Your task to perform on an android device: toggle location history Image 0: 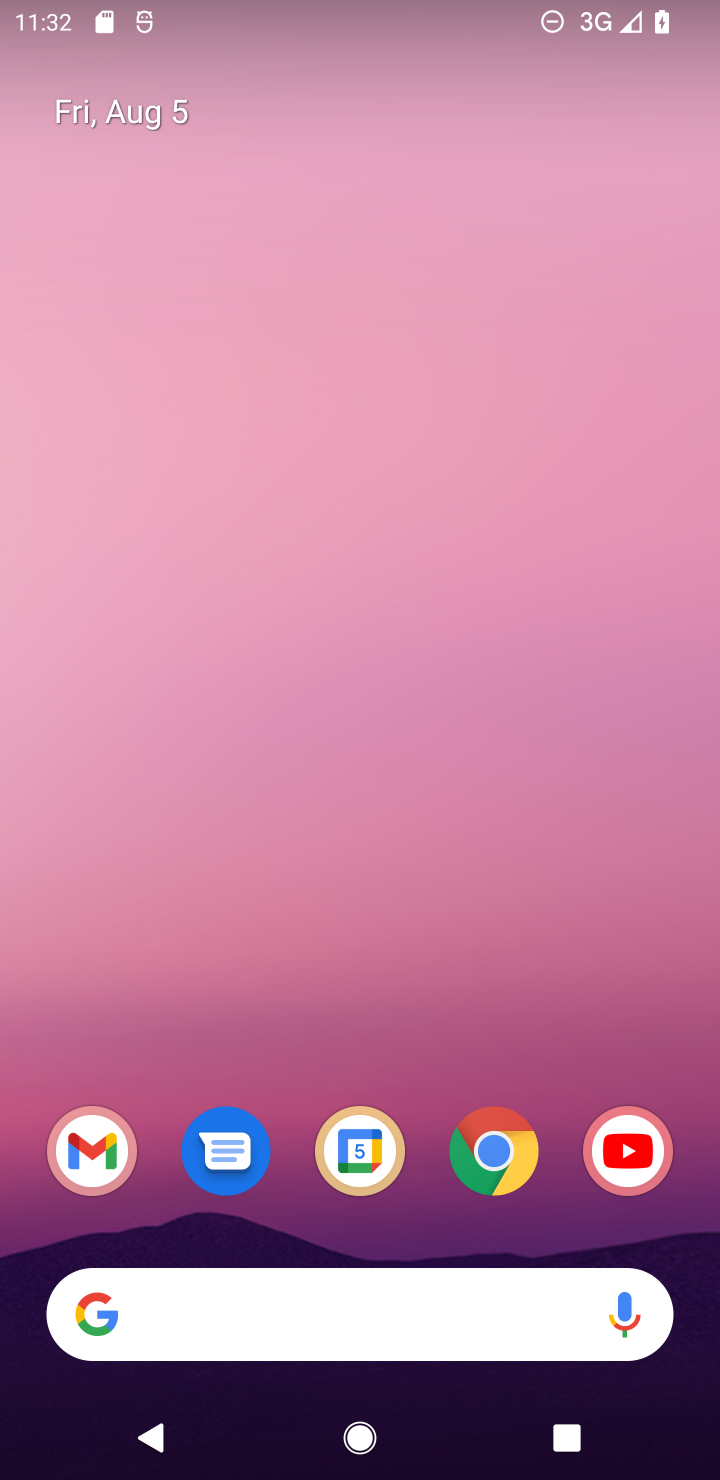
Step 0: drag from (388, 129) to (540, 739)
Your task to perform on an android device: toggle location history Image 1: 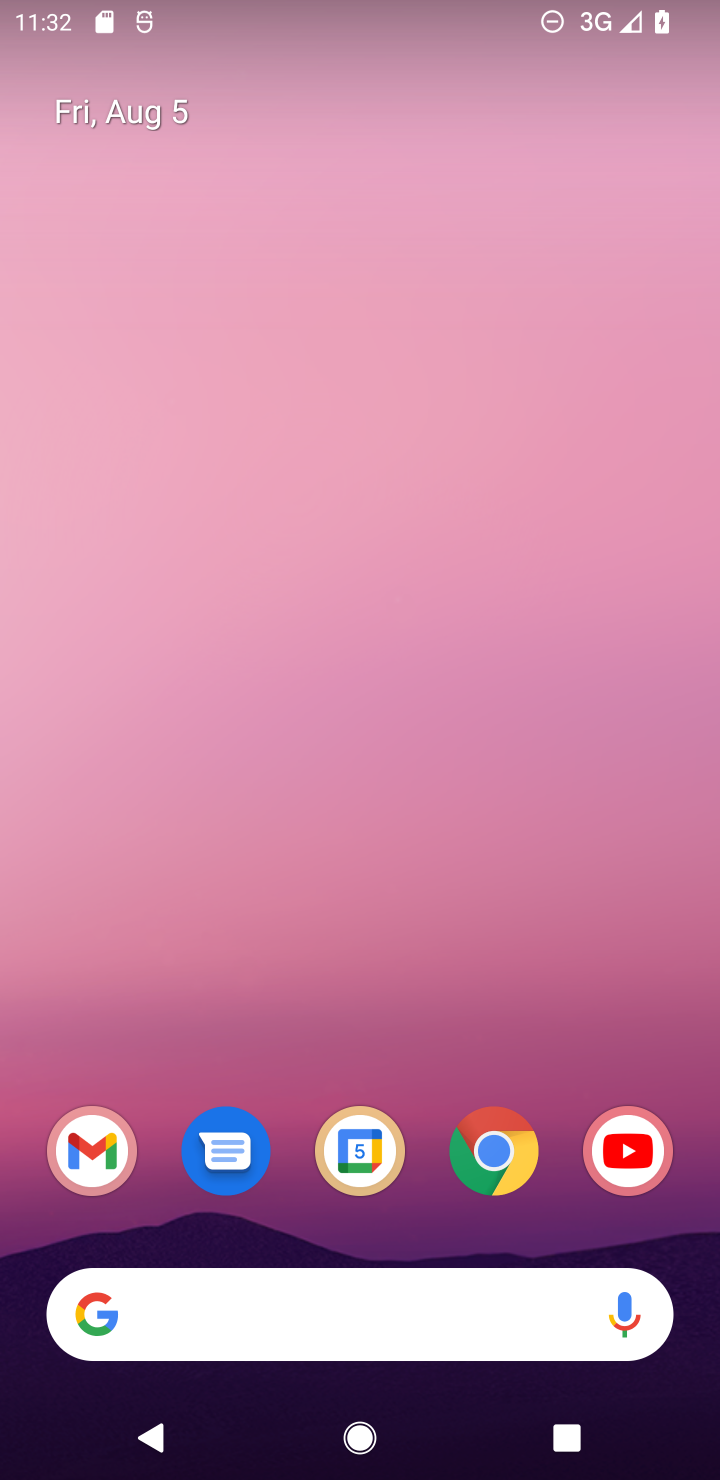
Step 1: drag from (439, 435) to (522, 157)
Your task to perform on an android device: toggle location history Image 2: 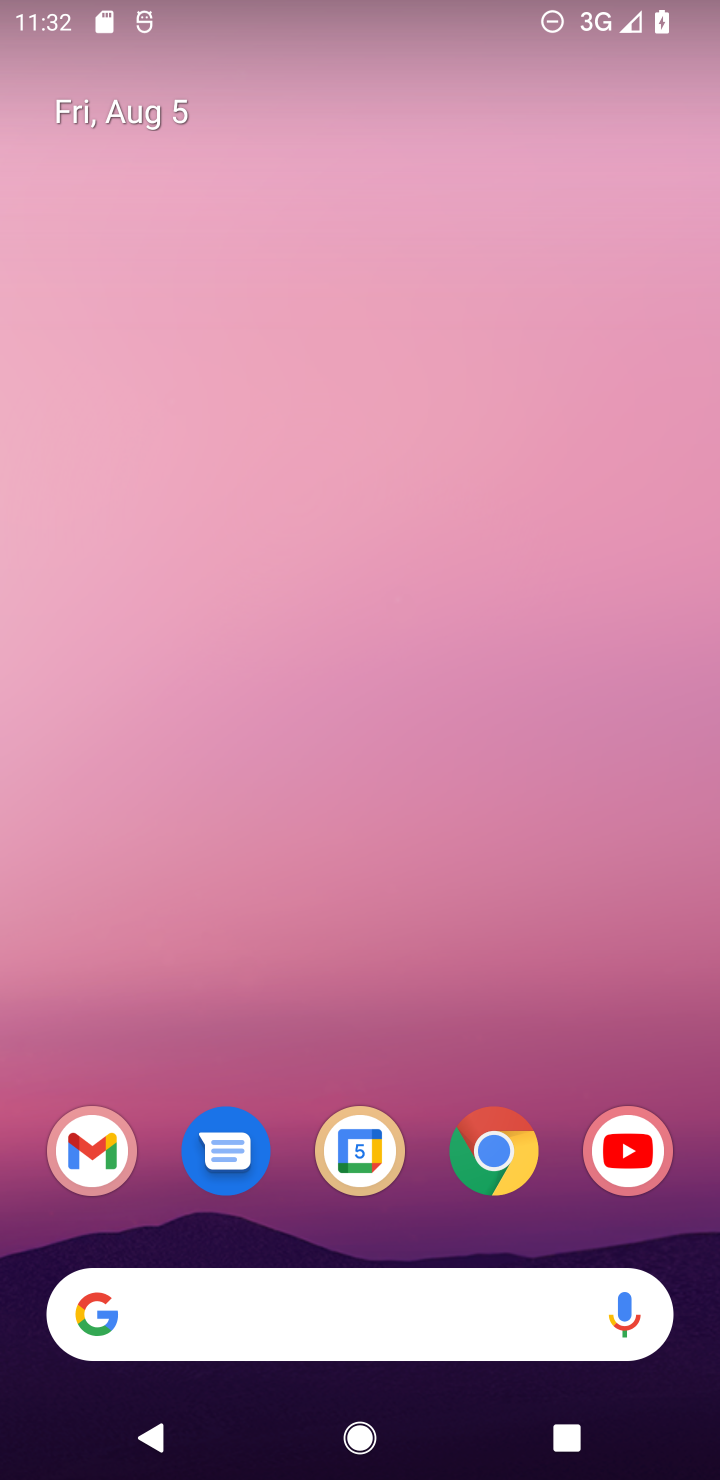
Step 2: drag from (291, 581) to (278, 249)
Your task to perform on an android device: toggle location history Image 3: 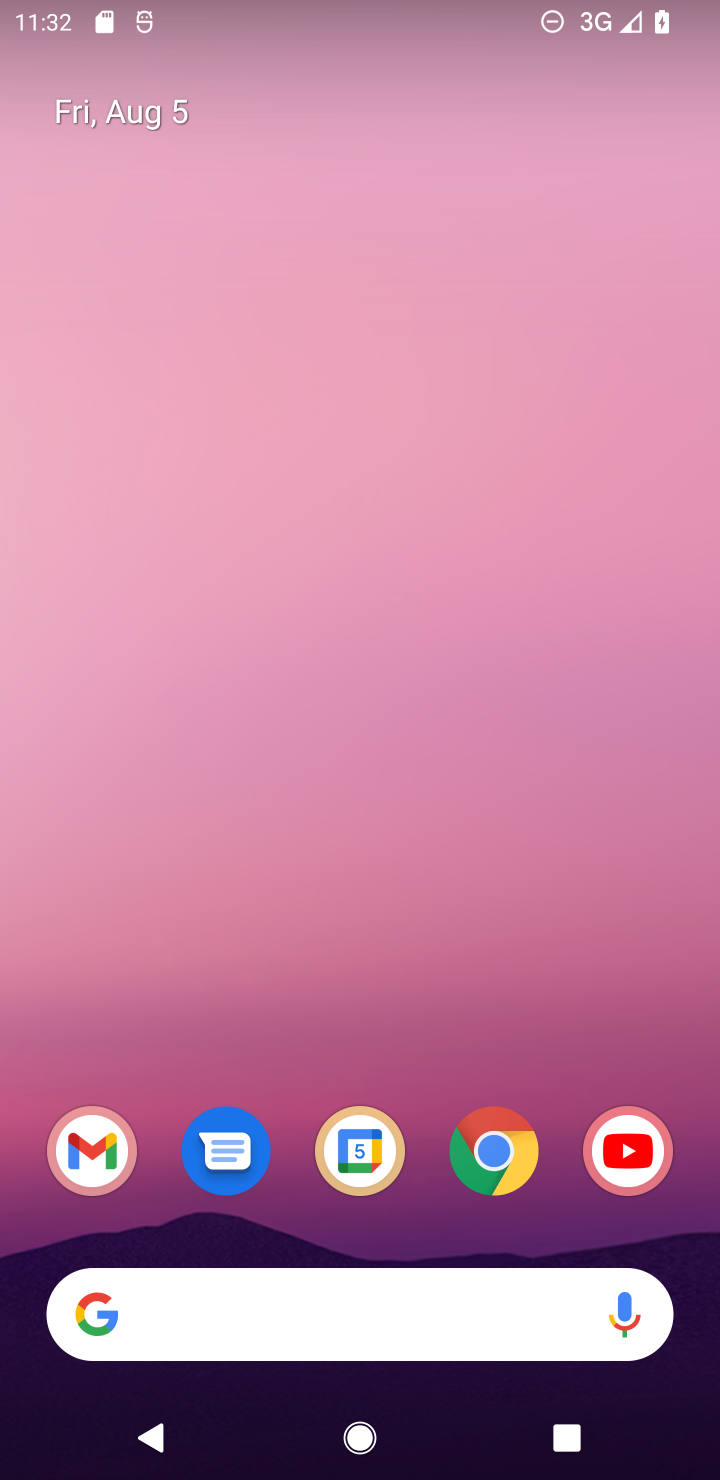
Step 3: drag from (283, 1128) to (349, 45)
Your task to perform on an android device: toggle location history Image 4: 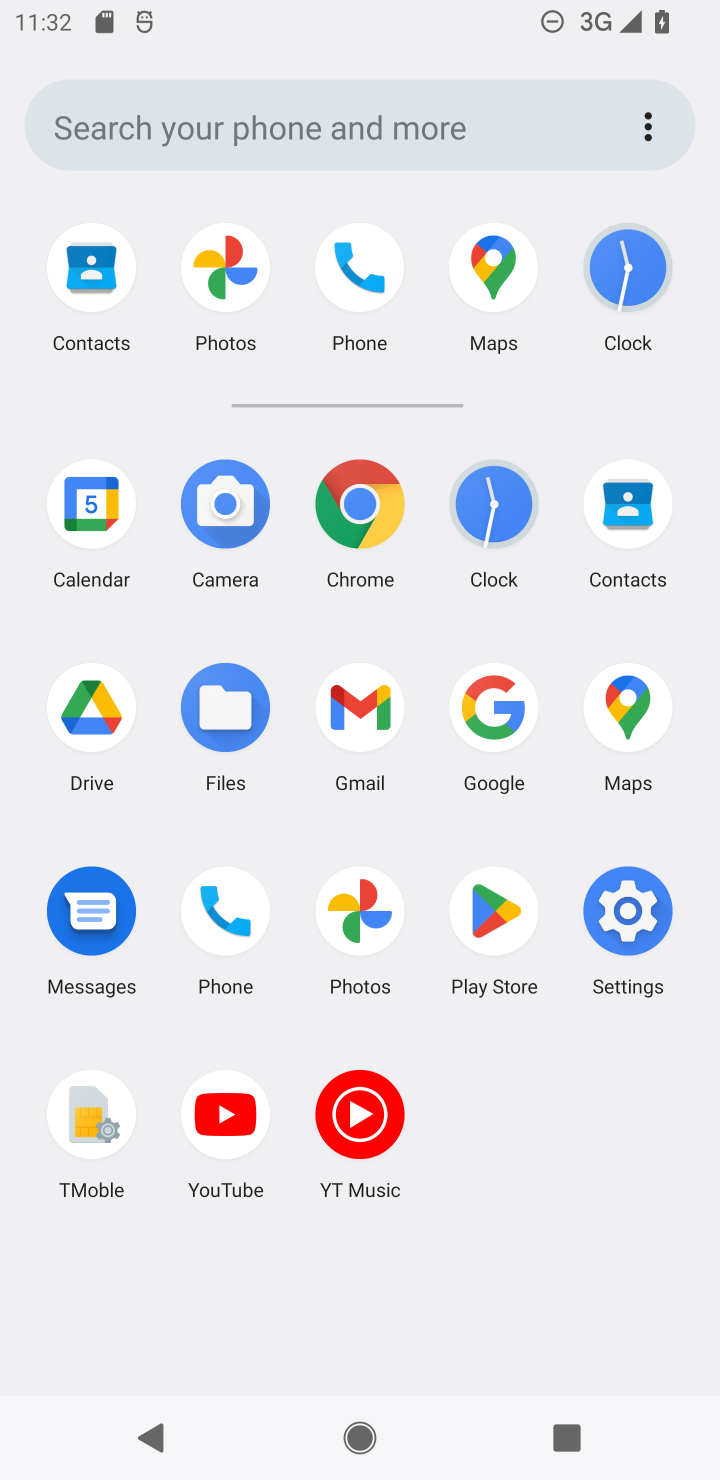
Step 4: click (613, 907)
Your task to perform on an android device: toggle location history Image 5: 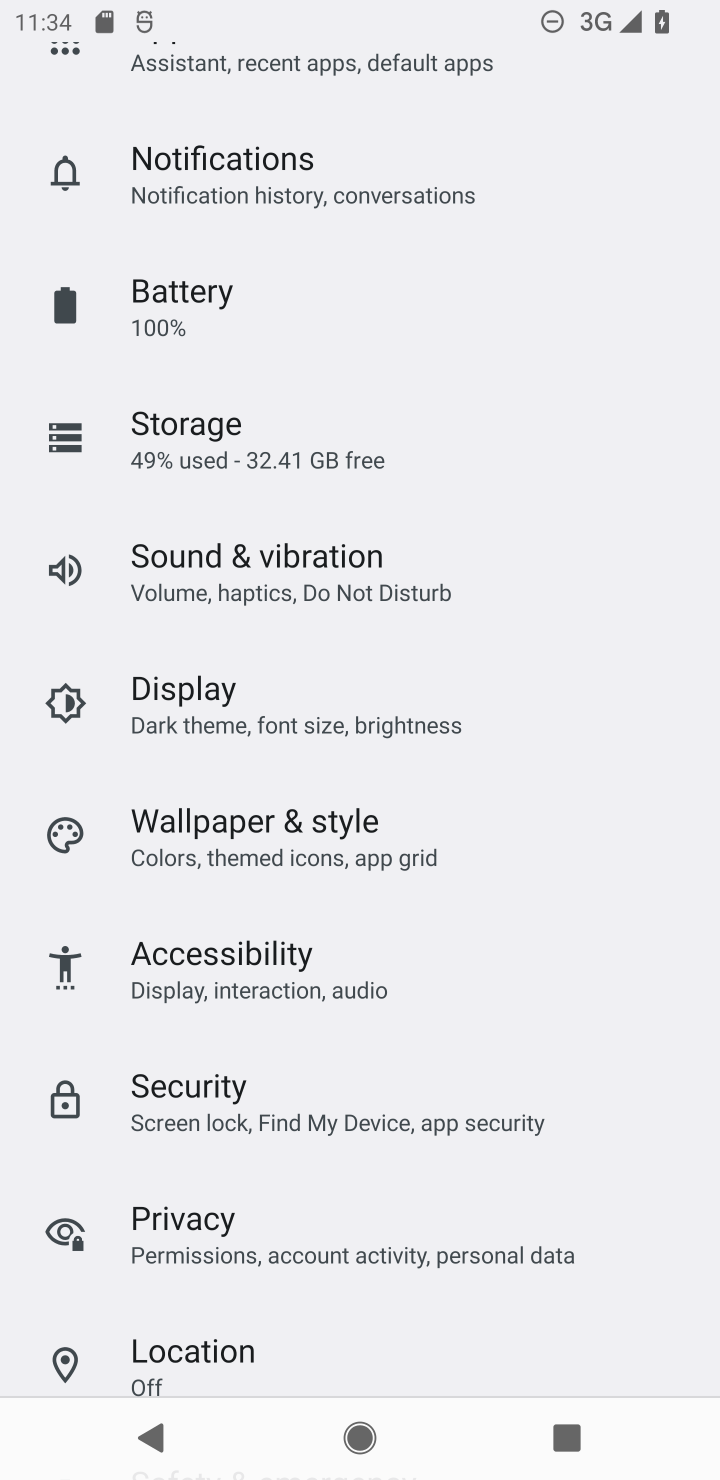
Step 5: click (613, 907)
Your task to perform on an android device: toggle location history Image 6: 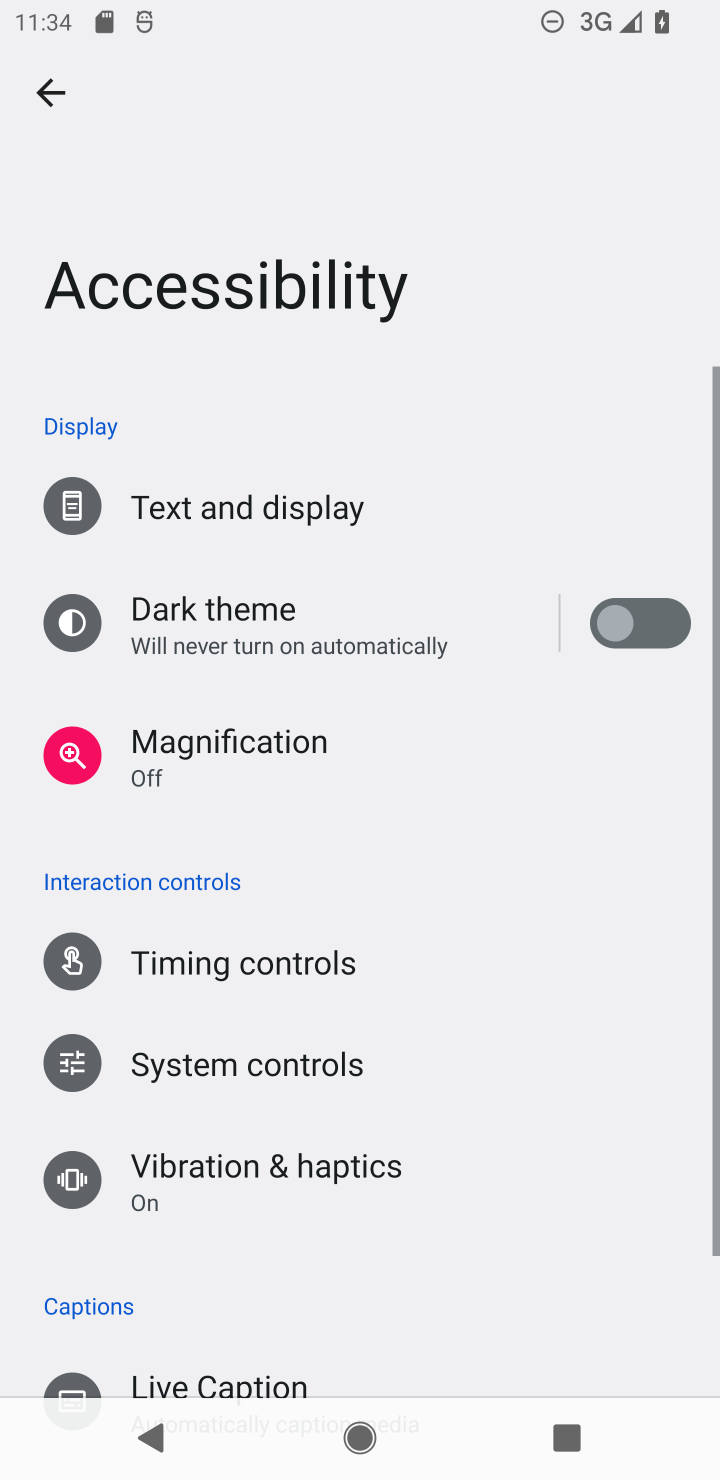
Step 6: click (613, 907)
Your task to perform on an android device: toggle location history Image 7: 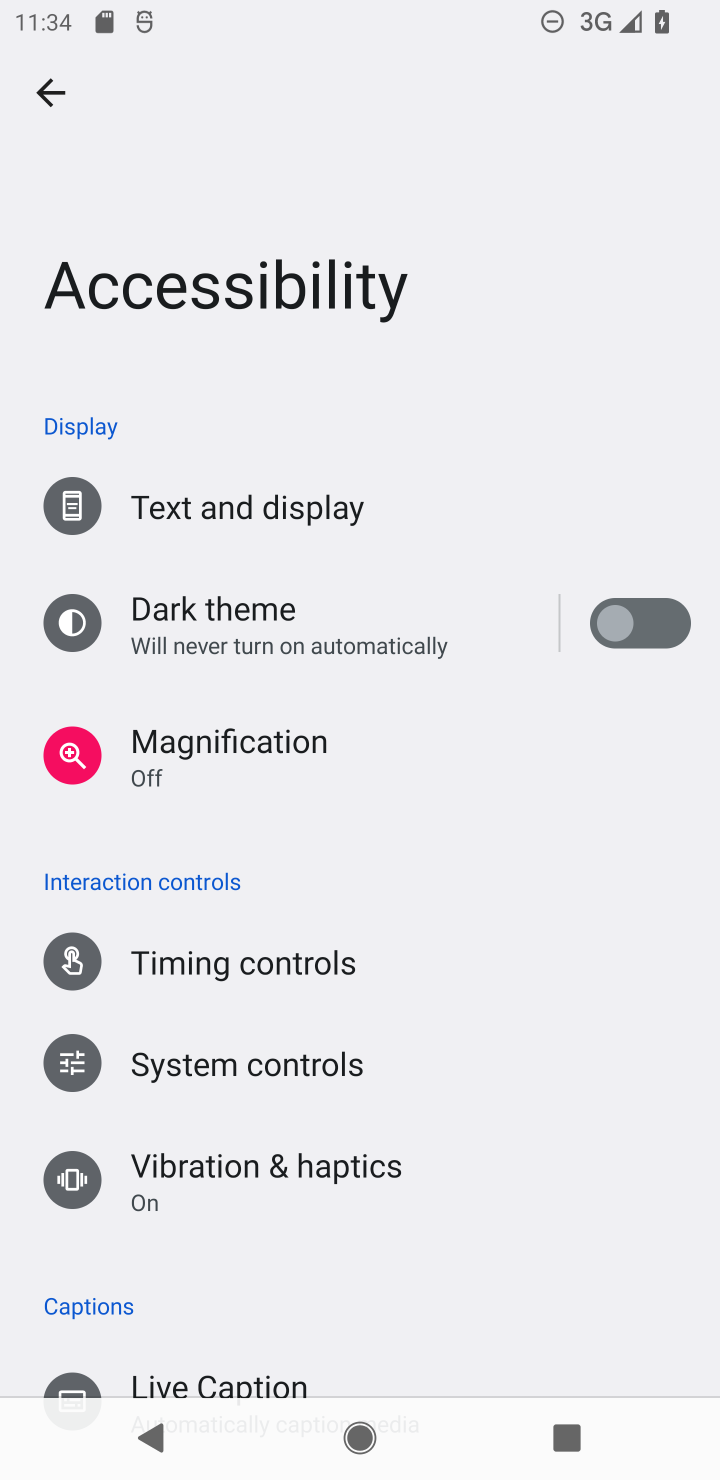
Step 7: press back button
Your task to perform on an android device: toggle location history Image 8: 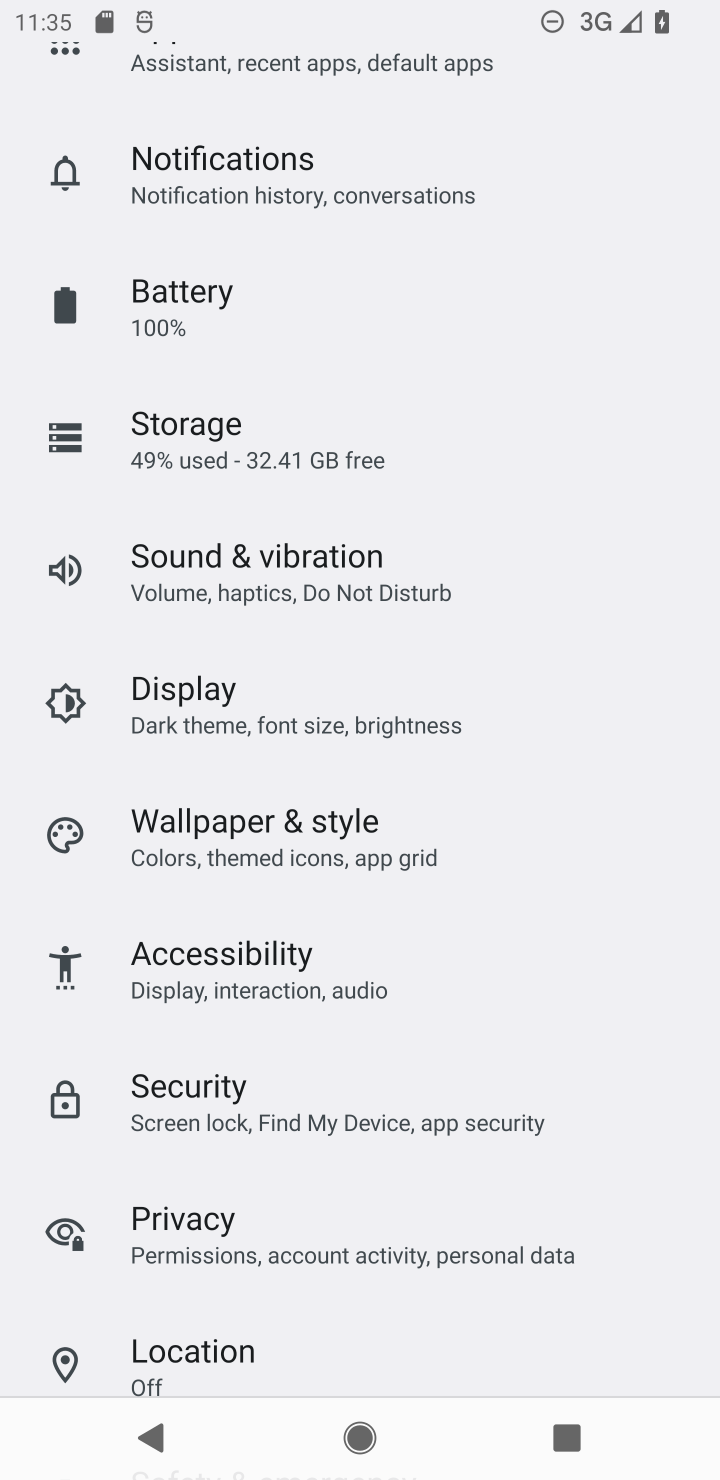
Step 8: click (165, 1357)
Your task to perform on an android device: toggle location history Image 9: 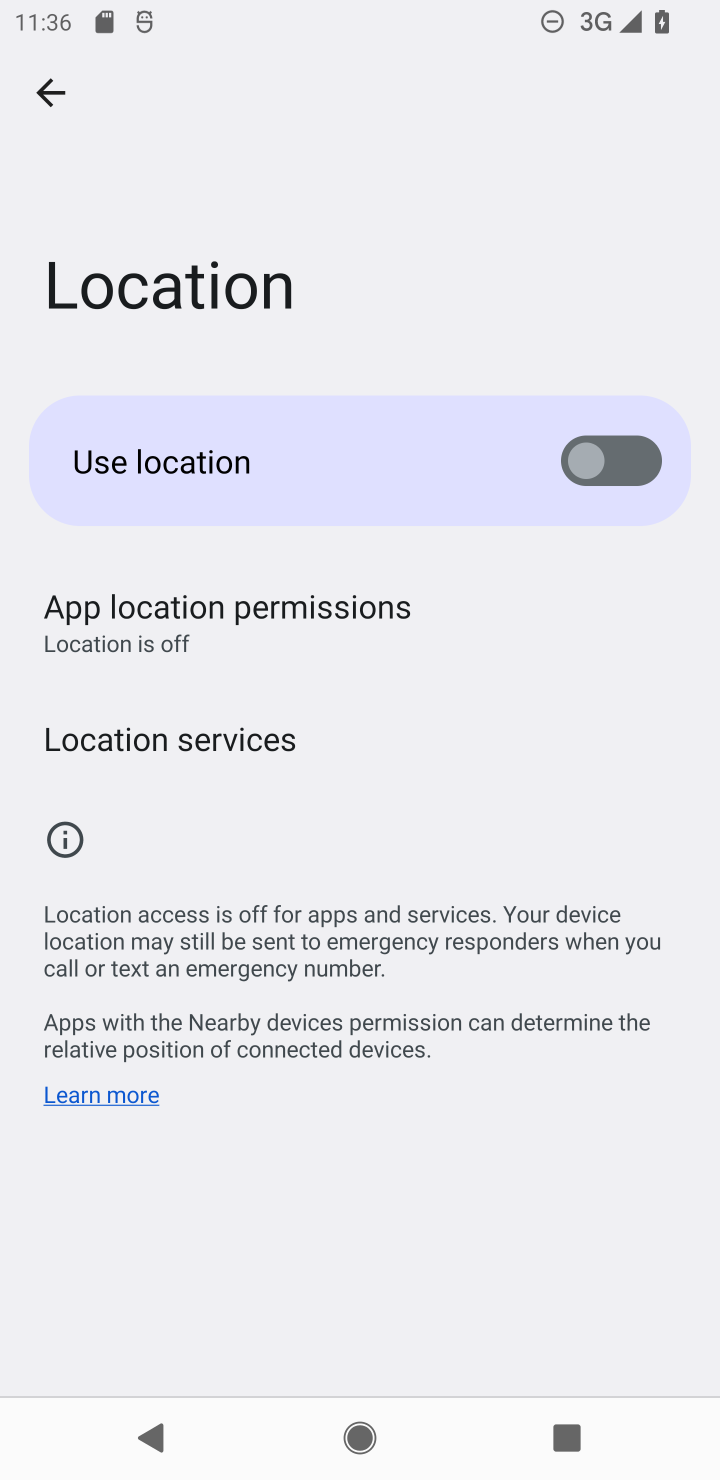
Step 9: click (253, 747)
Your task to perform on an android device: toggle location history Image 10: 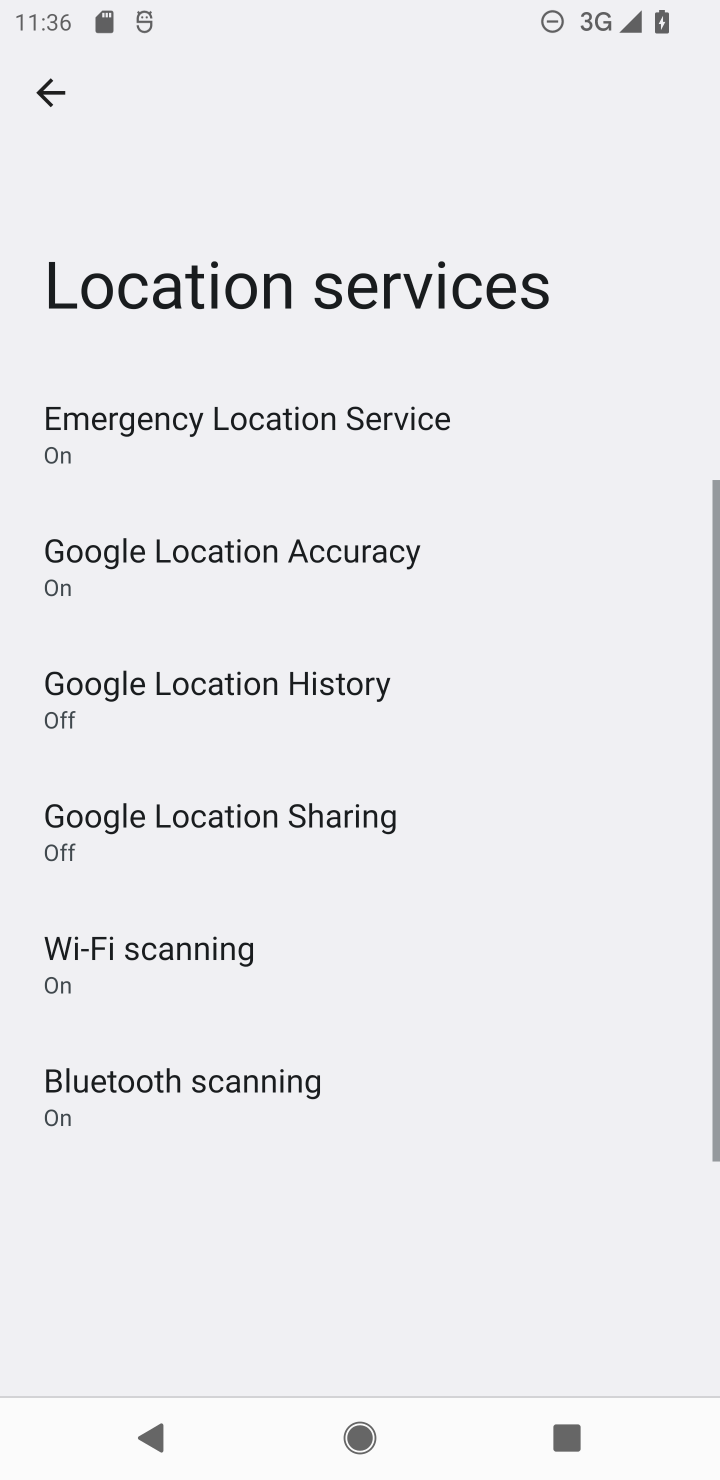
Step 10: click (367, 685)
Your task to perform on an android device: toggle location history Image 11: 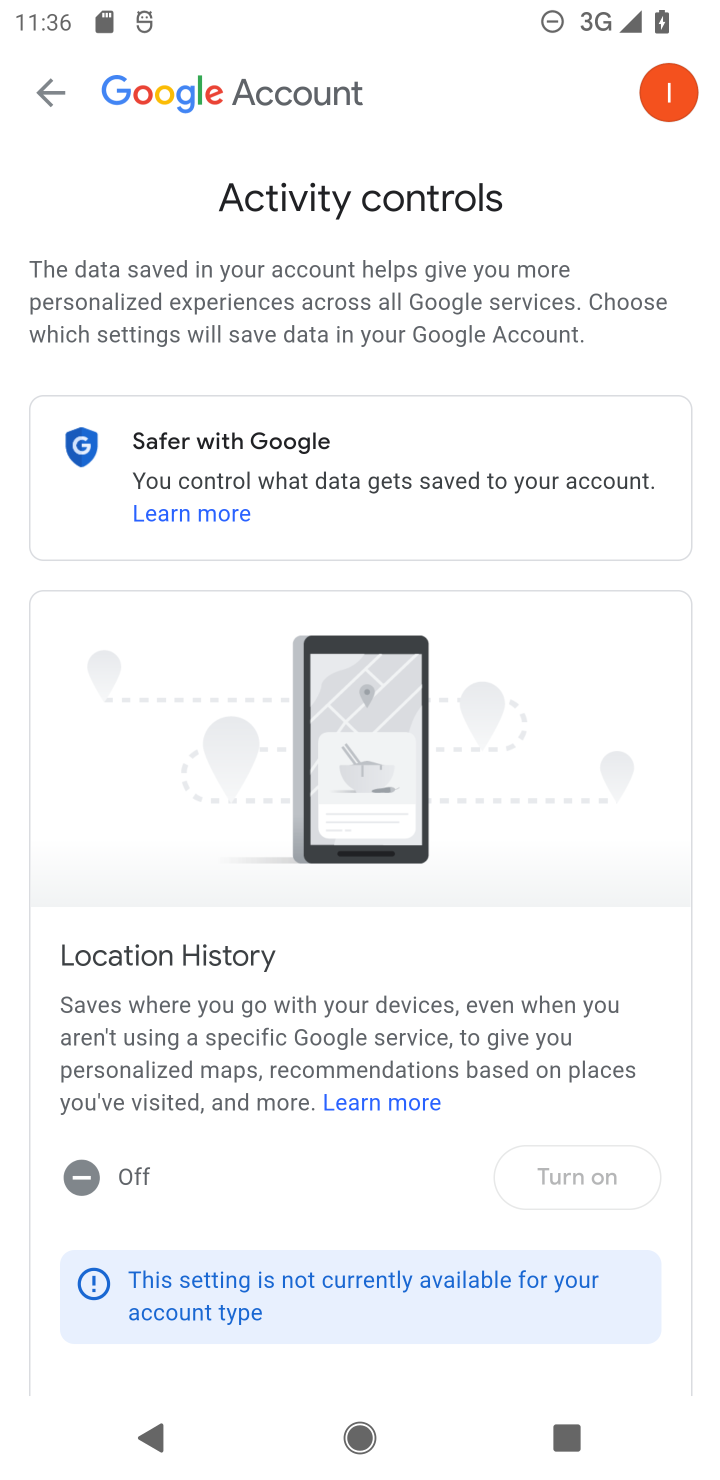
Step 11: task complete